Your task to perform on an android device: Clear the cart on walmart.com. Add "beats solo 3" to the cart on walmart.com, then select checkout. Image 0: 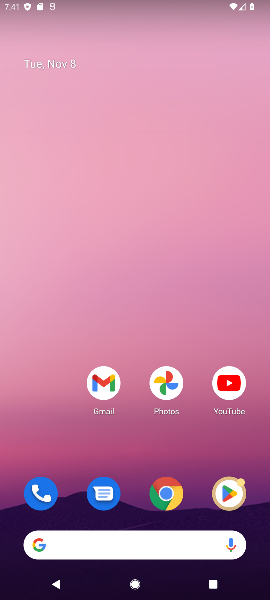
Step 0: click (166, 492)
Your task to perform on an android device: Clear the cart on walmart.com. Add "beats solo 3" to the cart on walmart.com, then select checkout. Image 1: 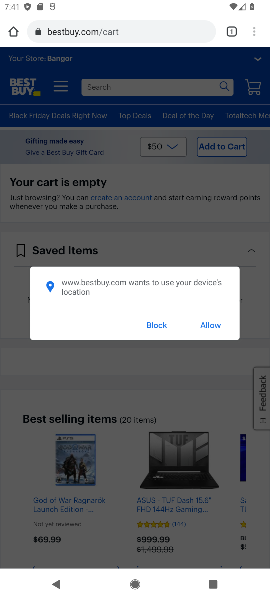
Step 1: click (95, 38)
Your task to perform on an android device: Clear the cart on walmart.com. Add "beats solo 3" to the cart on walmart.com, then select checkout. Image 2: 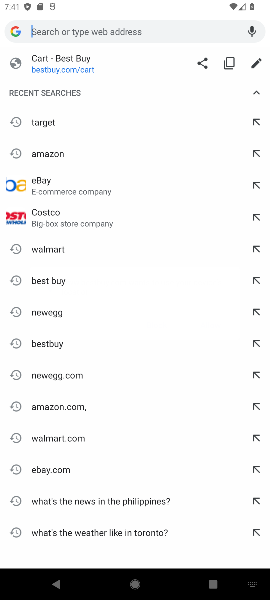
Step 2: type "walmart.com"
Your task to perform on an android device: Clear the cart on walmart.com. Add "beats solo 3" to the cart on walmart.com, then select checkout. Image 3: 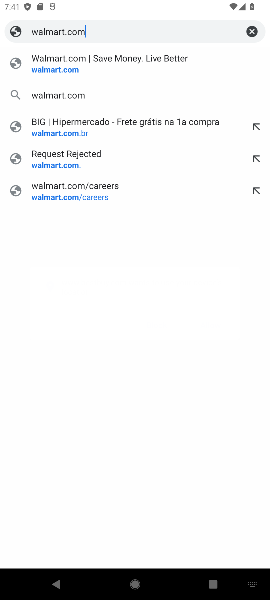
Step 3: click (50, 69)
Your task to perform on an android device: Clear the cart on walmart.com. Add "beats solo 3" to the cart on walmart.com, then select checkout. Image 4: 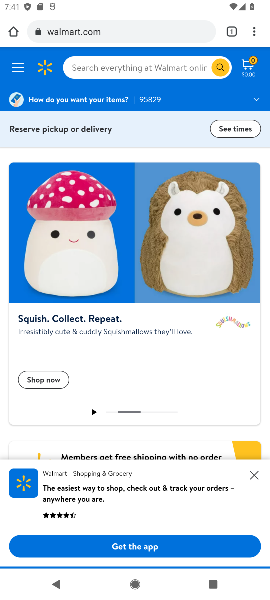
Step 4: click (248, 74)
Your task to perform on an android device: Clear the cart on walmart.com. Add "beats solo 3" to the cart on walmart.com, then select checkout. Image 5: 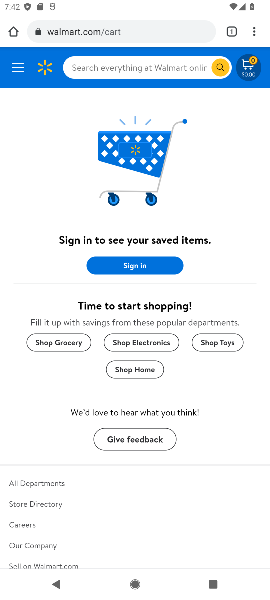
Step 5: click (138, 68)
Your task to perform on an android device: Clear the cart on walmart.com. Add "beats solo 3" to the cart on walmart.com, then select checkout. Image 6: 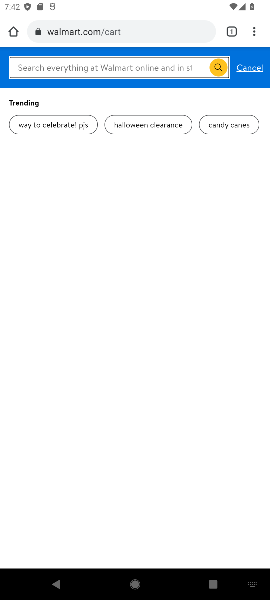
Step 6: type "beats solo 3"
Your task to perform on an android device: Clear the cart on walmart.com. Add "beats solo 3" to the cart on walmart.com, then select checkout. Image 7: 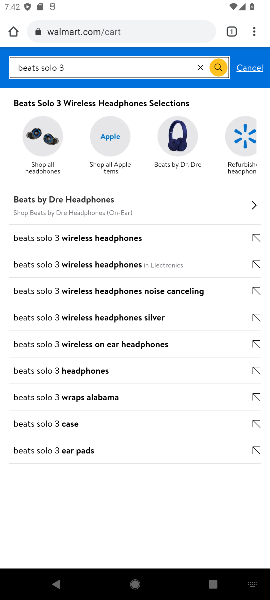
Step 7: click (220, 70)
Your task to perform on an android device: Clear the cart on walmart.com. Add "beats solo 3" to the cart on walmart.com, then select checkout. Image 8: 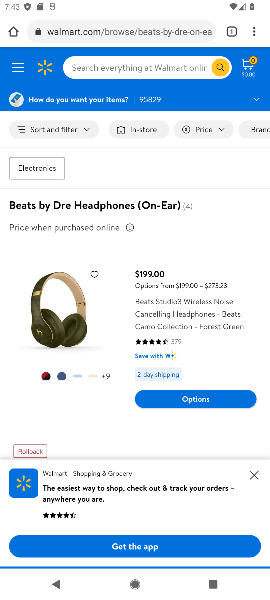
Step 8: click (87, 322)
Your task to perform on an android device: Clear the cart on walmart.com. Add "beats solo 3" to the cart on walmart.com, then select checkout. Image 9: 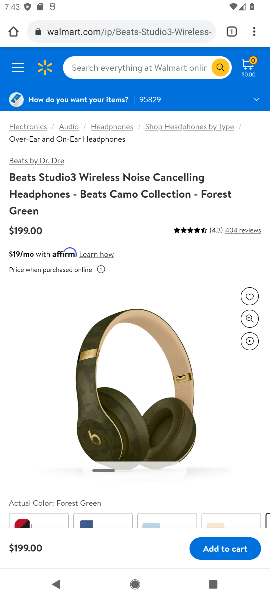
Step 9: press back button
Your task to perform on an android device: Clear the cart on walmart.com. Add "beats solo 3" to the cart on walmart.com, then select checkout. Image 10: 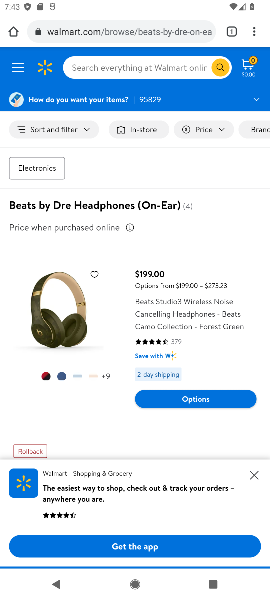
Step 10: drag from (95, 393) to (114, 134)
Your task to perform on an android device: Clear the cart on walmart.com. Add "beats solo 3" to the cart on walmart.com, then select checkout. Image 11: 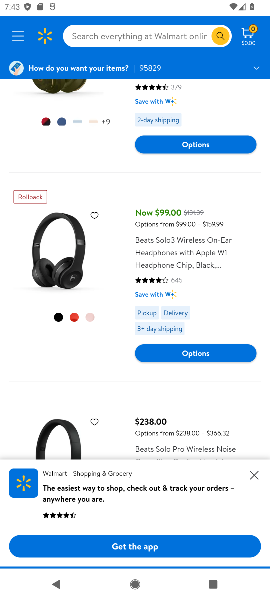
Step 11: click (186, 355)
Your task to perform on an android device: Clear the cart on walmart.com. Add "beats solo 3" to the cart on walmart.com, then select checkout. Image 12: 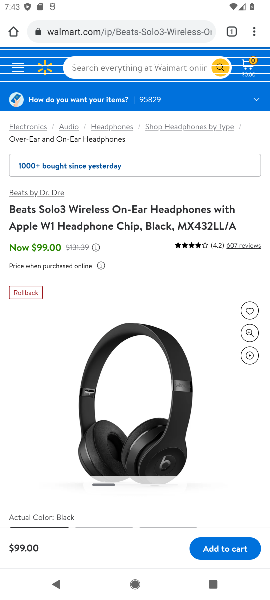
Step 12: click (231, 549)
Your task to perform on an android device: Clear the cart on walmart.com. Add "beats solo 3" to the cart on walmart.com, then select checkout. Image 13: 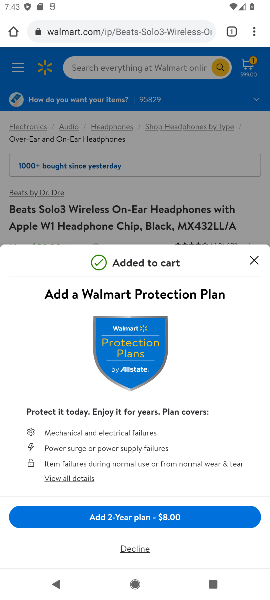
Step 13: click (254, 264)
Your task to perform on an android device: Clear the cart on walmart.com. Add "beats solo 3" to the cart on walmart.com, then select checkout. Image 14: 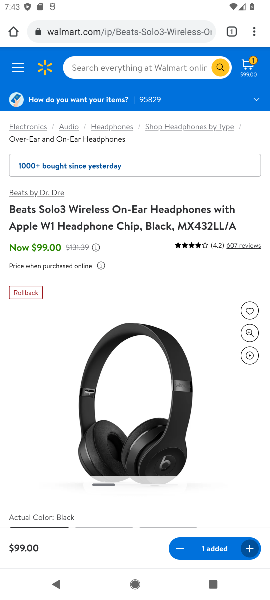
Step 14: click (247, 68)
Your task to perform on an android device: Clear the cart on walmart.com. Add "beats solo 3" to the cart on walmart.com, then select checkout. Image 15: 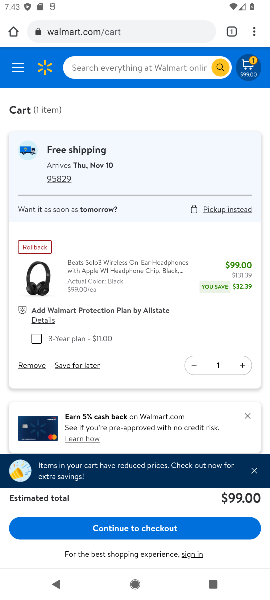
Step 15: click (122, 534)
Your task to perform on an android device: Clear the cart on walmart.com. Add "beats solo 3" to the cart on walmart.com, then select checkout. Image 16: 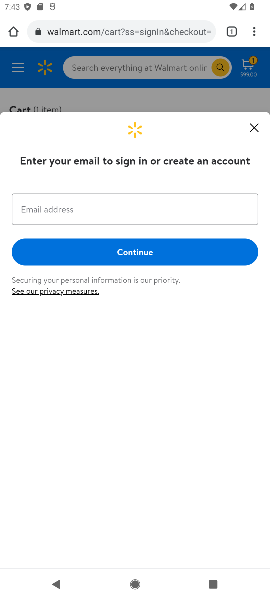
Step 16: task complete